Your task to perform on an android device: turn pop-ups on in chrome Image 0: 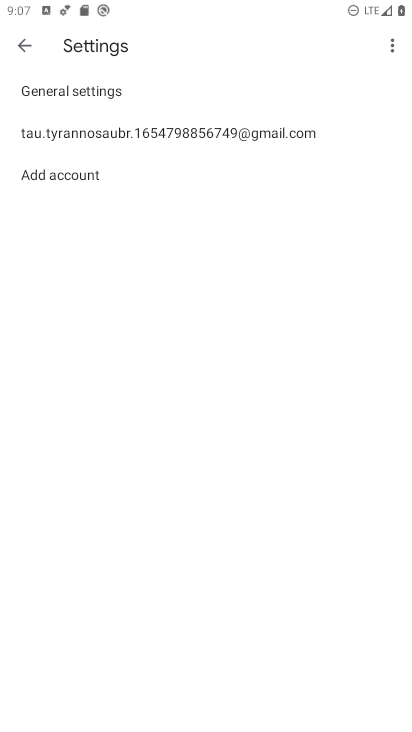
Step 0: press home button
Your task to perform on an android device: turn pop-ups on in chrome Image 1: 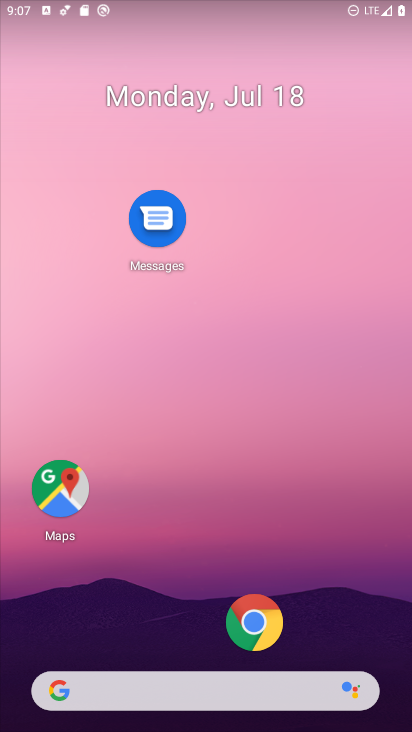
Step 1: drag from (195, 666) to (227, 125)
Your task to perform on an android device: turn pop-ups on in chrome Image 2: 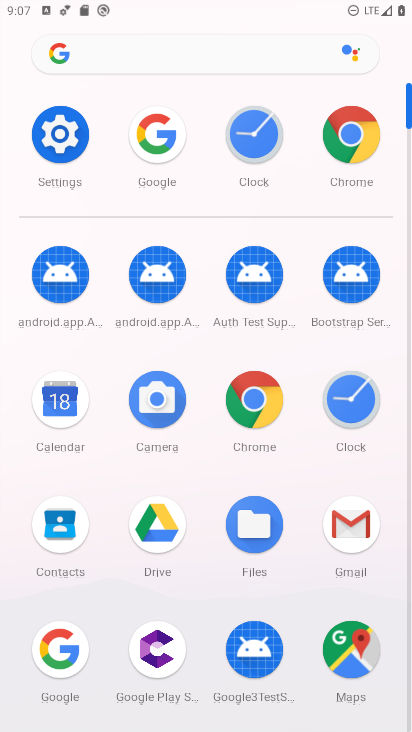
Step 2: click (371, 132)
Your task to perform on an android device: turn pop-ups on in chrome Image 3: 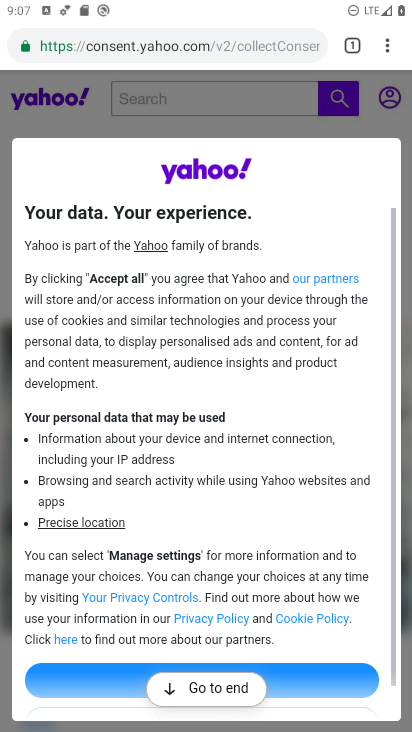
Step 3: click (378, 49)
Your task to perform on an android device: turn pop-ups on in chrome Image 4: 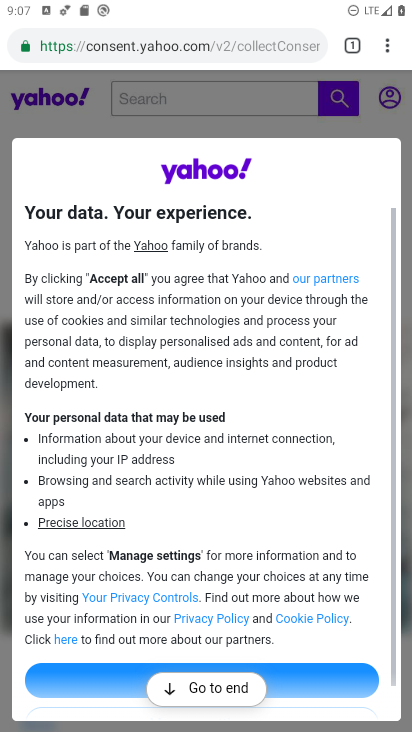
Step 4: click (389, 54)
Your task to perform on an android device: turn pop-ups on in chrome Image 5: 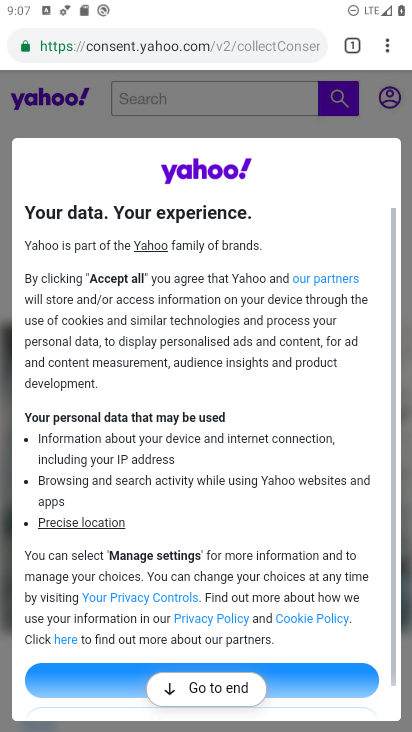
Step 5: click (391, 55)
Your task to perform on an android device: turn pop-ups on in chrome Image 6: 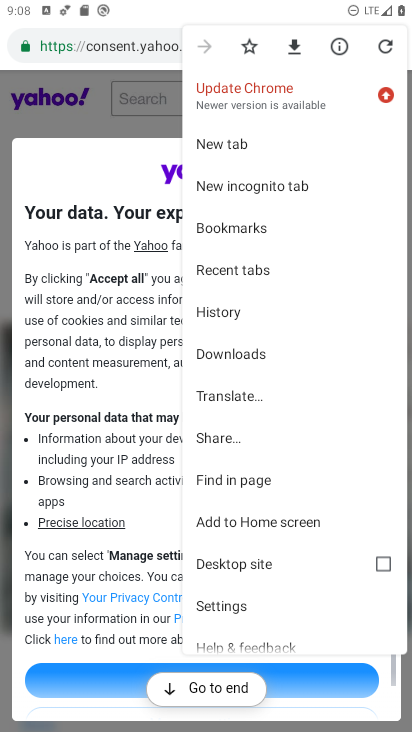
Step 6: click (246, 607)
Your task to perform on an android device: turn pop-ups on in chrome Image 7: 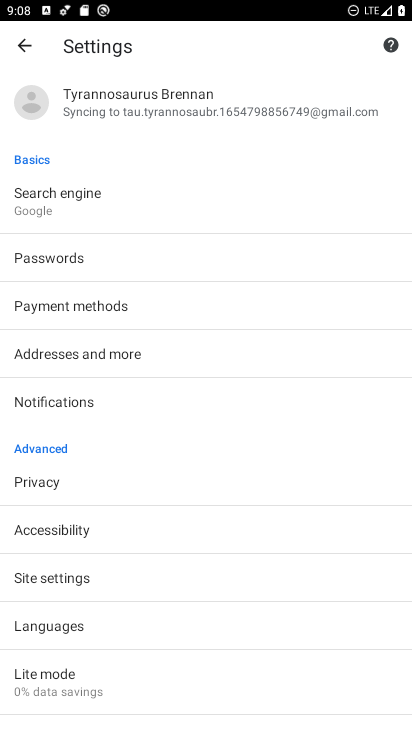
Step 7: click (58, 585)
Your task to perform on an android device: turn pop-ups on in chrome Image 8: 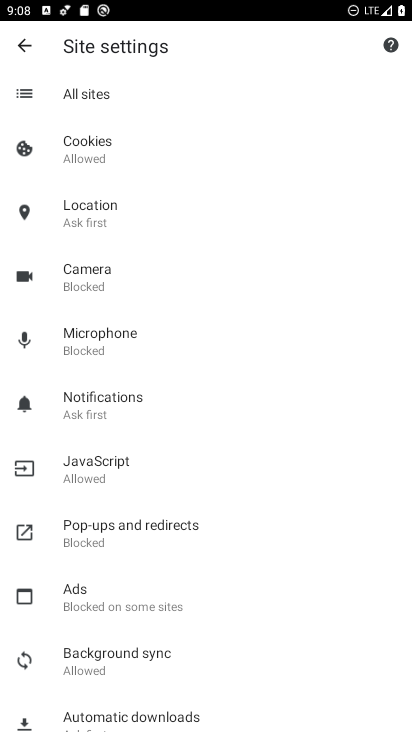
Step 8: click (130, 543)
Your task to perform on an android device: turn pop-ups on in chrome Image 9: 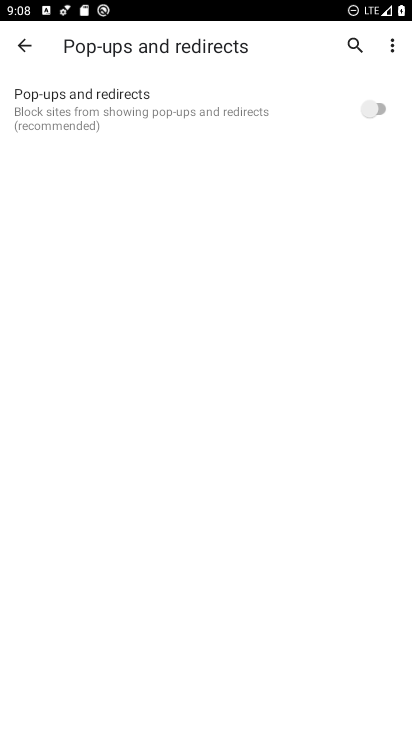
Step 9: click (382, 106)
Your task to perform on an android device: turn pop-ups on in chrome Image 10: 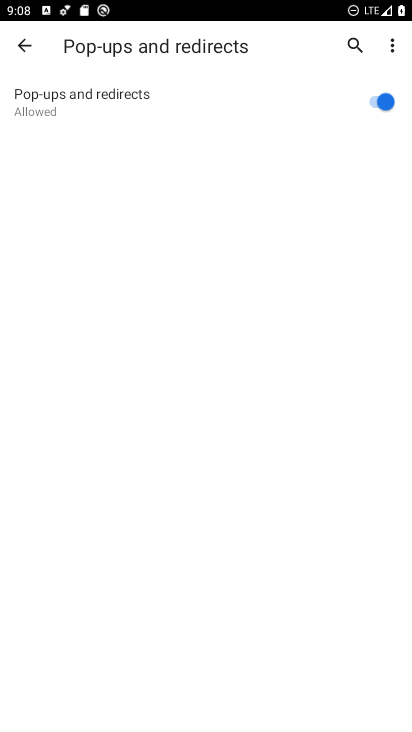
Step 10: task complete